Your task to perform on an android device: Open calendar and show me the first week of next month Image 0: 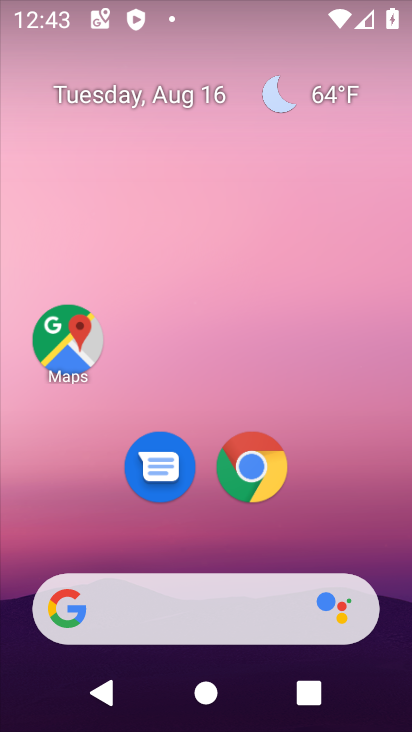
Step 0: drag from (358, 519) to (364, 75)
Your task to perform on an android device: Open calendar and show me the first week of next month Image 1: 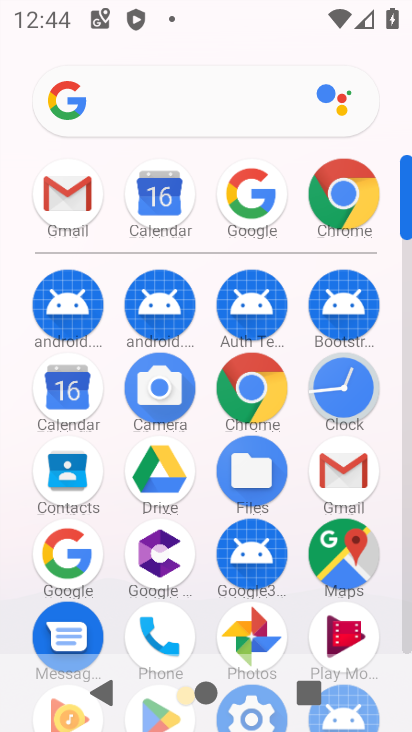
Step 1: click (66, 391)
Your task to perform on an android device: Open calendar and show me the first week of next month Image 2: 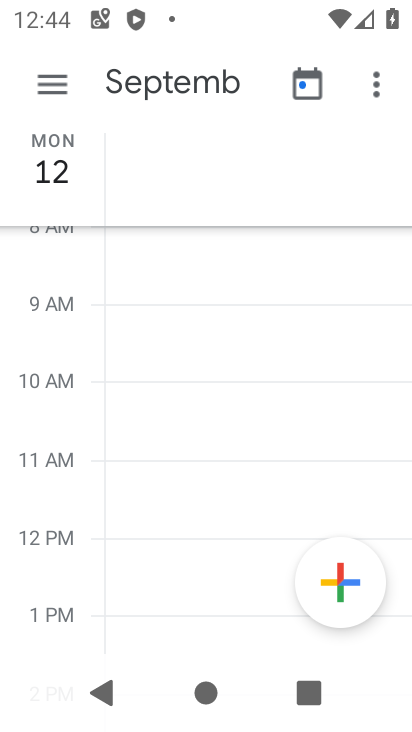
Step 2: click (50, 85)
Your task to perform on an android device: Open calendar and show me the first week of next month Image 3: 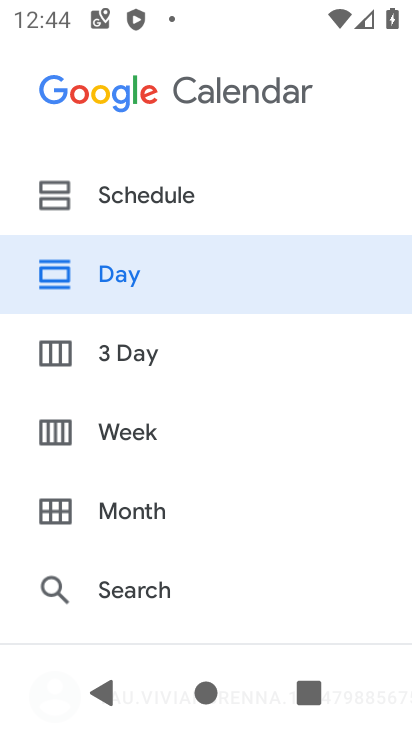
Step 3: click (133, 184)
Your task to perform on an android device: Open calendar and show me the first week of next month Image 4: 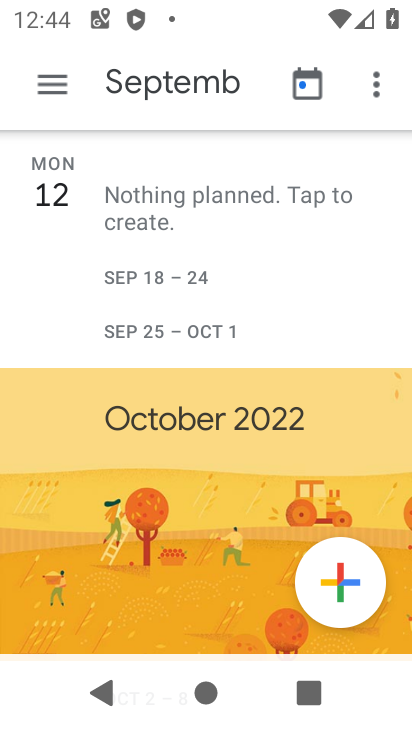
Step 4: drag from (285, 173) to (261, 402)
Your task to perform on an android device: Open calendar and show me the first week of next month Image 5: 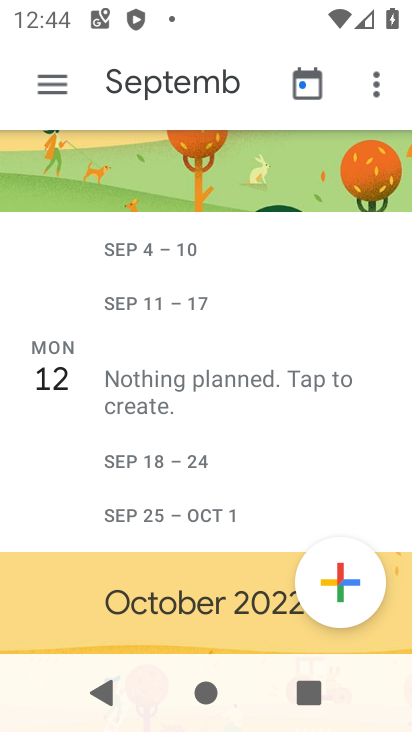
Step 5: click (199, 86)
Your task to perform on an android device: Open calendar and show me the first week of next month Image 6: 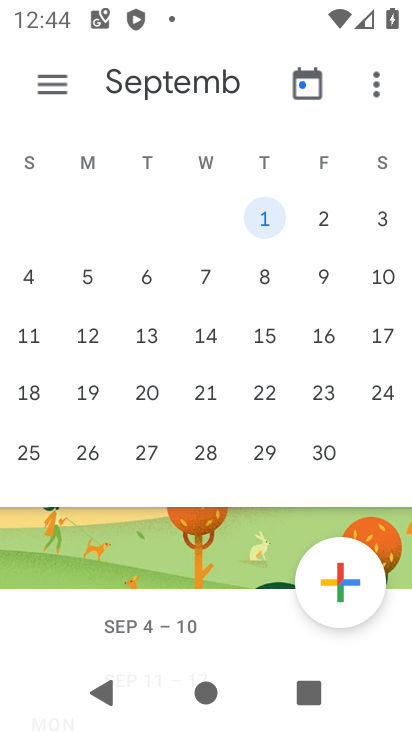
Step 6: task complete